Your task to perform on an android device: open app "Microsoft Excel" (install if not already installed) Image 0: 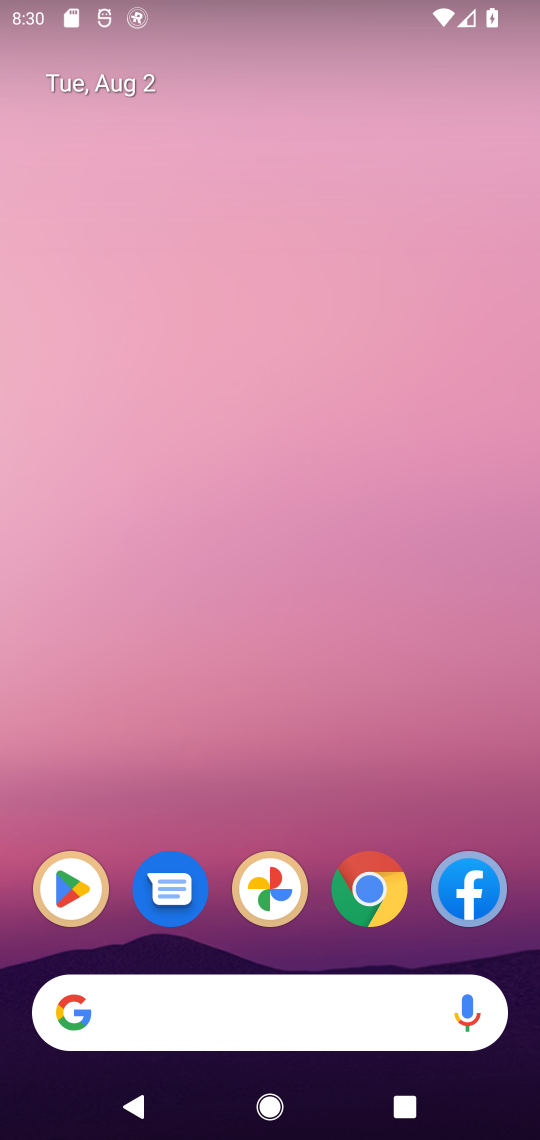
Step 0: click (78, 898)
Your task to perform on an android device: open app "Microsoft Excel" (install if not already installed) Image 1: 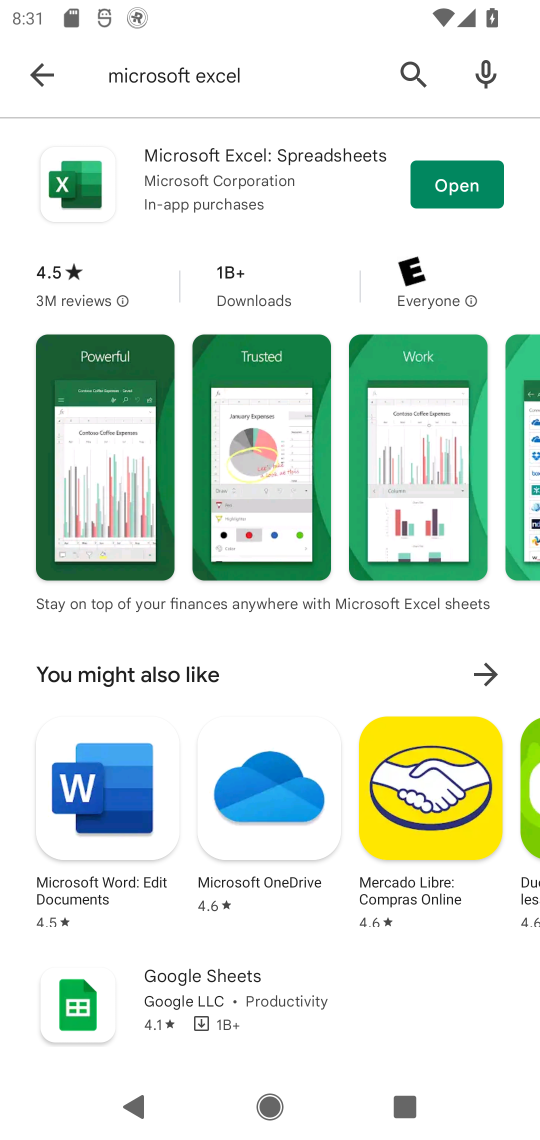
Step 1: click (407, 70)
Your task to perform on an android device: open app "Microsoft Excel" (install if not already installed) Image 2: 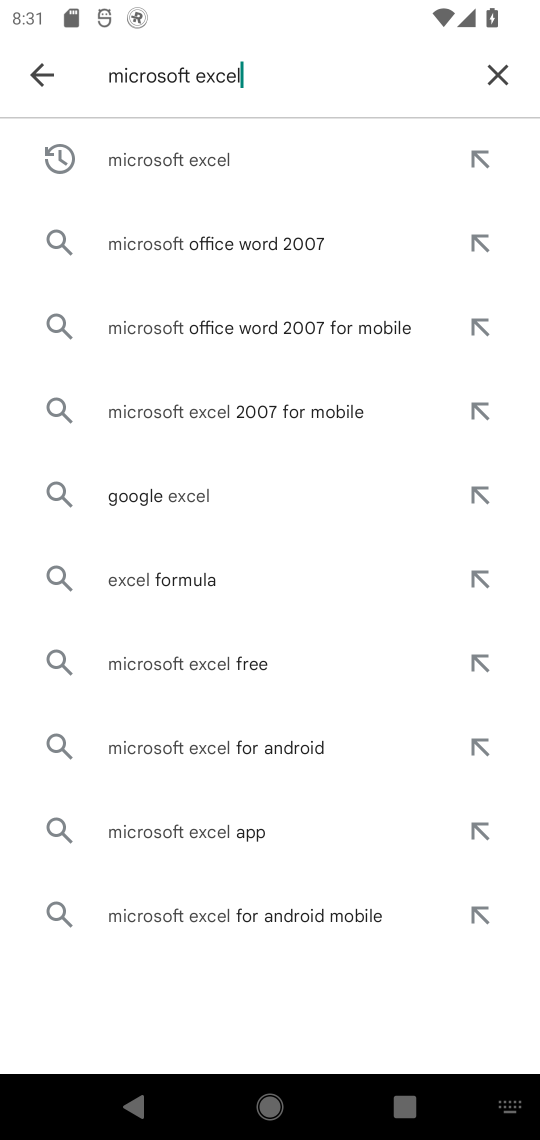
Step 2: click (497, 63)
Your task to perform on an android device: open app "Microsoft Excel" (install if not already installed) Image 3: 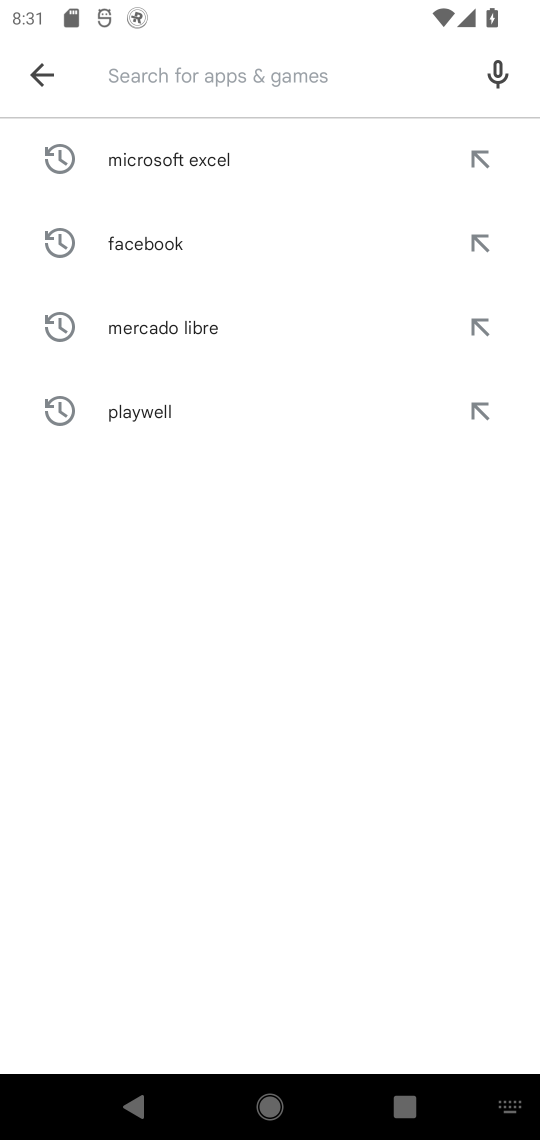
Step 3: type "Microsoft Excel"
Your task to perform on an android device: open app "Microsoft Excel" (install if not already installed) Image 4: 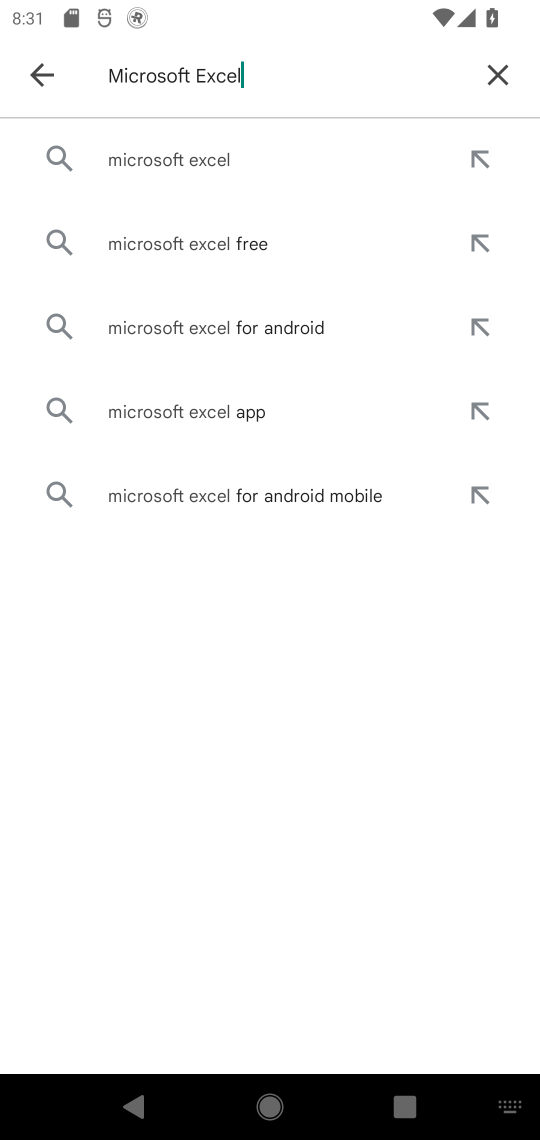
Step 4: click (214, 163)
Your task to perform on an android device: open app "Microsoft Excel" (install if not already installed) Image 5: 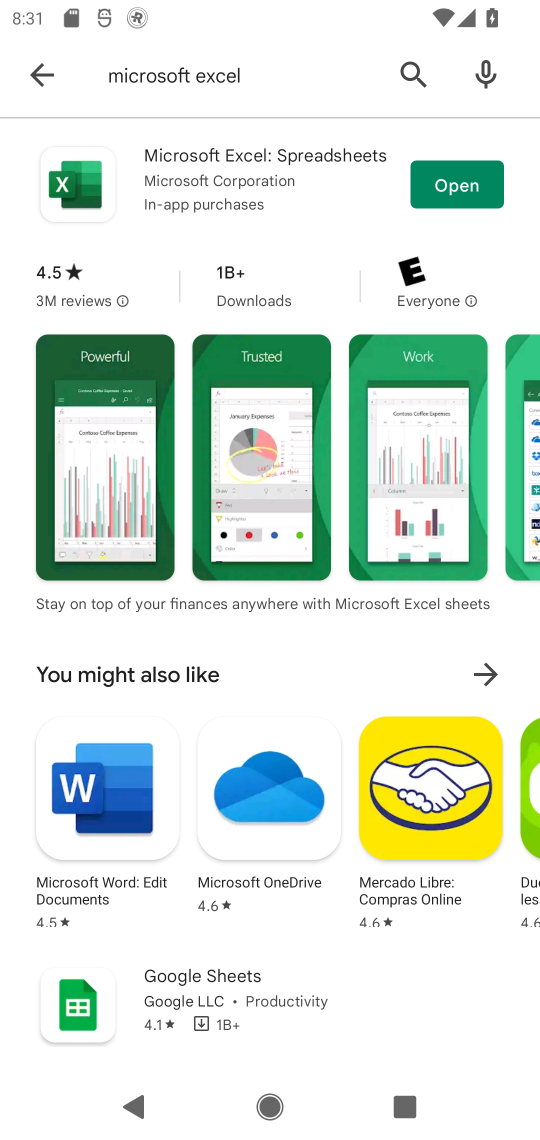
Step 5: click (429, 183)
Your task to perform on an android device: open app "Microsoft Excel" (install if not already installed) Image 6: 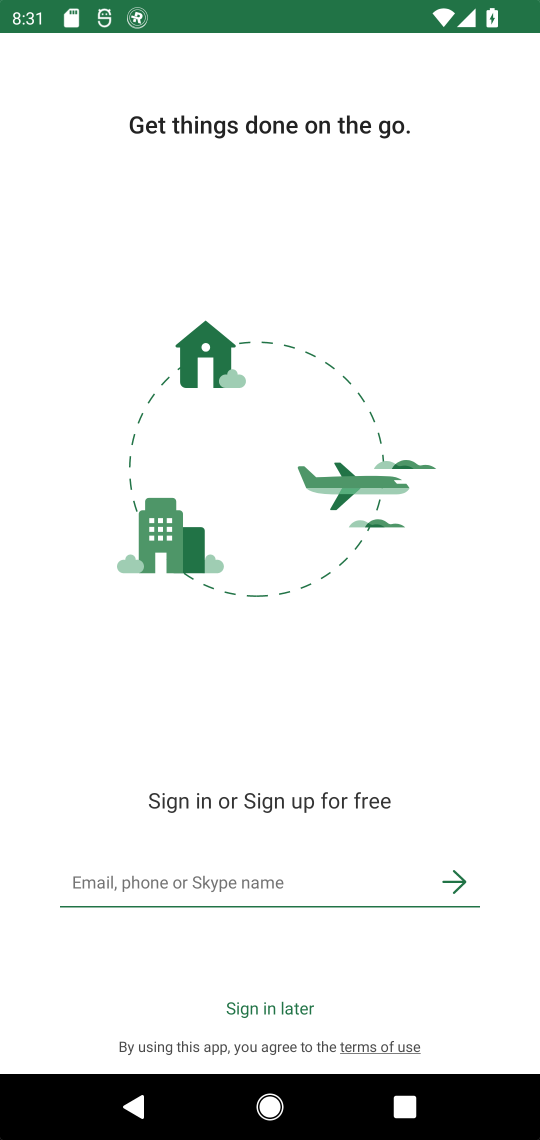
Step 6: task complete